Your task to perform on an android device: toggle priority inbox in the gmail app Image 0: 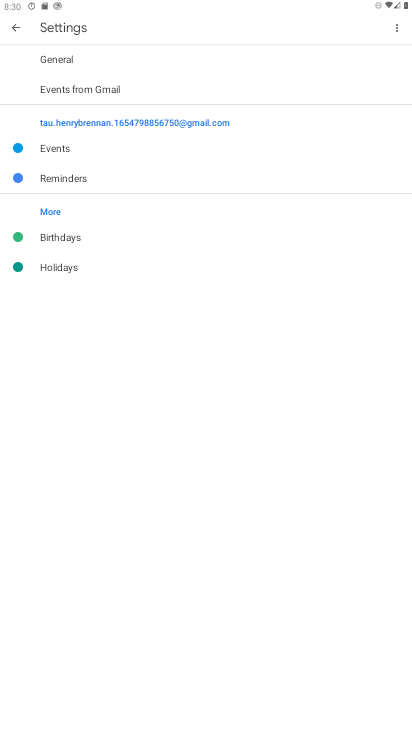
Step 0: press home button
Your task to perform on an android device: toggle priority inbox in the gmail app Image 1: 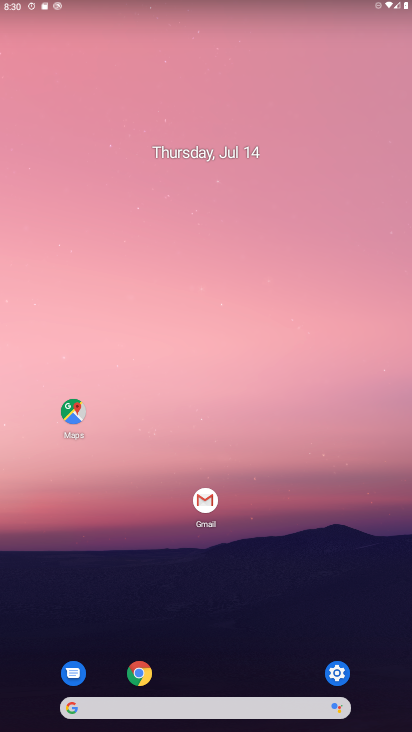
Step 1: click (203, 499)
Your task to perform on an android device: toggle priority inbox in the gmail app Image 2: 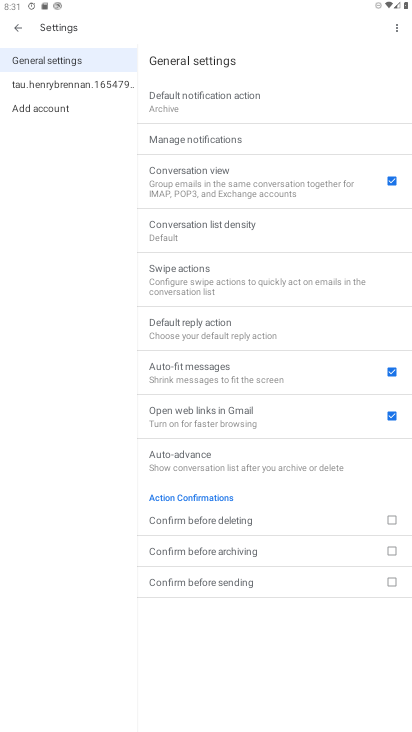
Step 2: click (99, 80)
Your task to perform on an android device: toggle priority inbox in the gmail app Image 3: 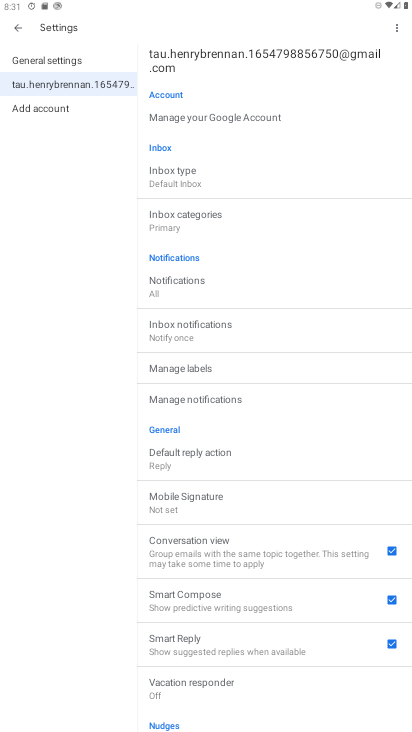
Step 3: click (193, 162)
Your task to perform on an android device: toggle priority inbox in the gmail app Image 4: 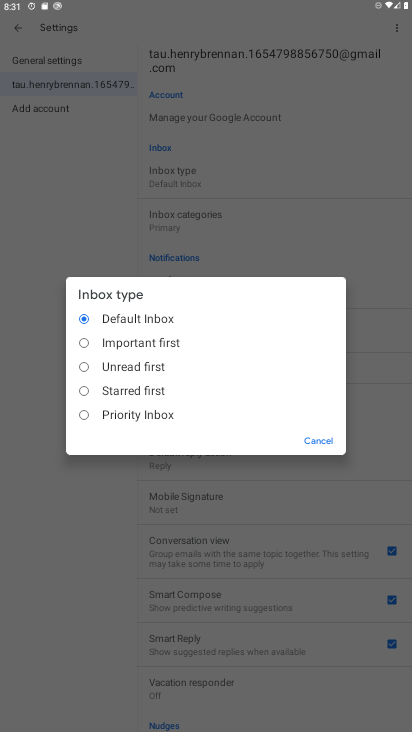
Step 4: click (113, 412)
Your task to perform on an android device: toggle priority inbox in the gmail app Image 5: 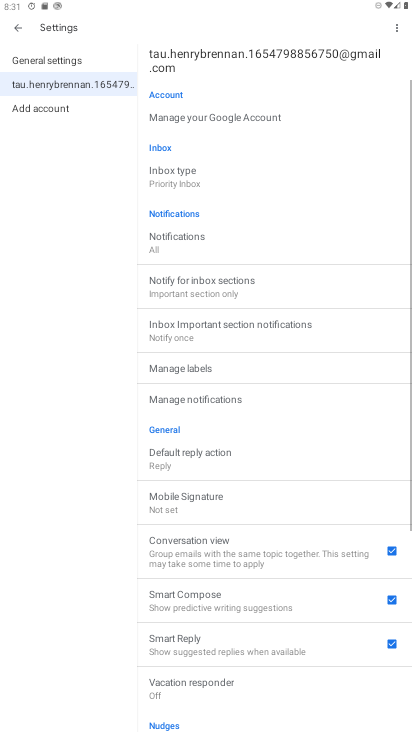
Step 5: click (117, 414)
Your task to perform on an android device: toggle priority inbox in the gmail app Image 6: 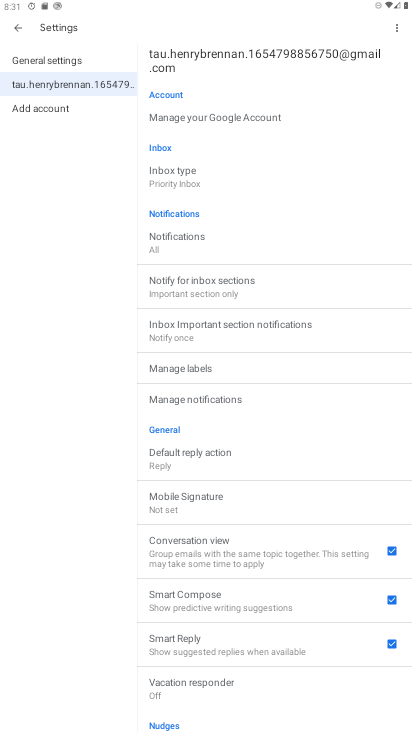
Step 6: click (182, 173)
Your task to perform on an android device: toggle priority inbox in the gmail app Image 7: 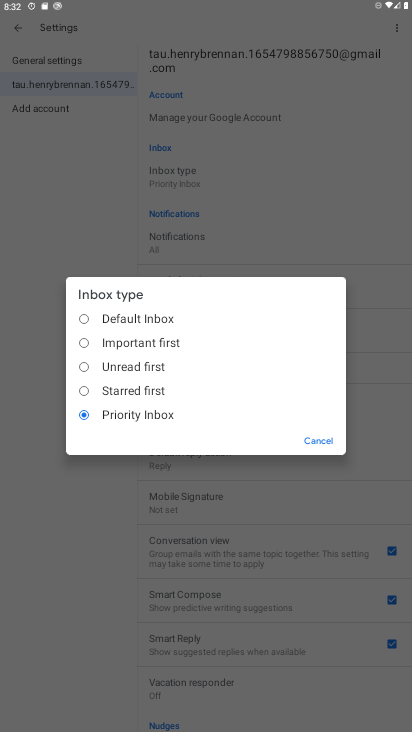
Step 7: task complete